Your task to perform on an android device: Open wifi settings Image 0: 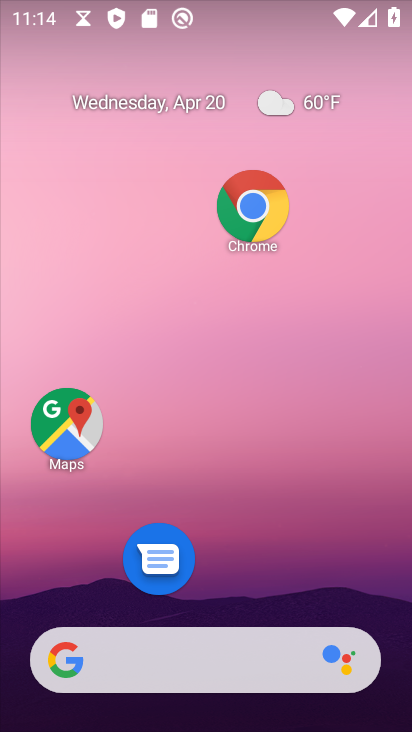
Step 0: drag from (305, 732) to (208, 43)
Your task to perform on an android device: Open wifi settings Image 1: 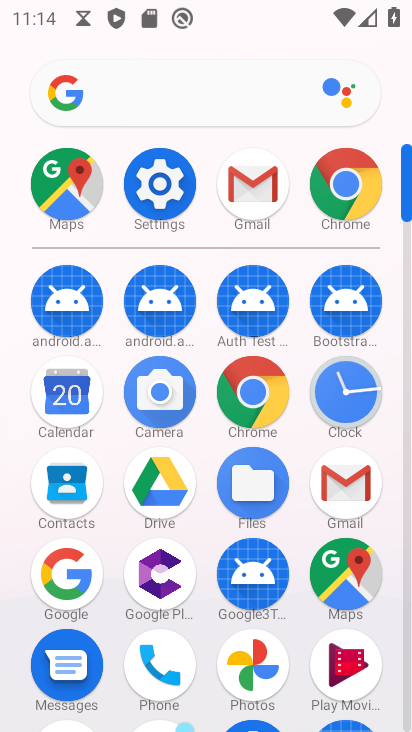
Step 1: drag from (192, 640) to (301, 11)
Your task to perform on an android device: Open wifi settings Image 2: 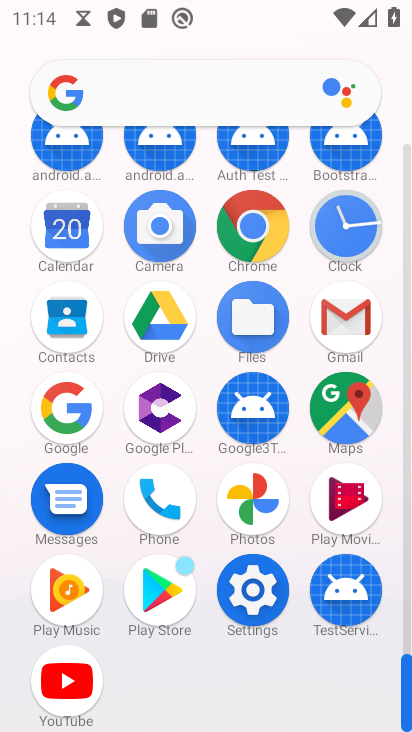
Step 2: click (262, 605)
Your task to perform on an android device: Open wifi settings Image 3: 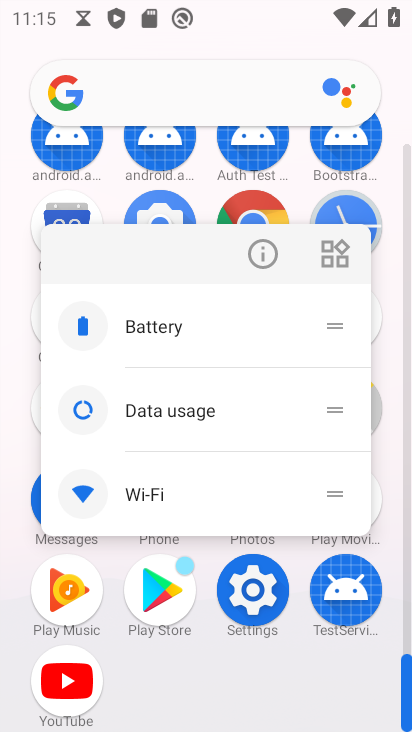
Step 3: click (263, 605)
Your task to perform on an android device: Open wifi settings Image 4: 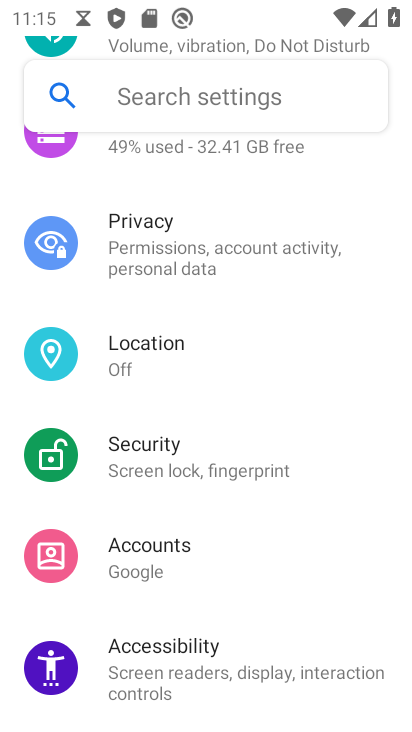
Step 4: drag from (221, 254) to (261, 728)
Your task to perform on an android device: Open wifi settings Image 5: 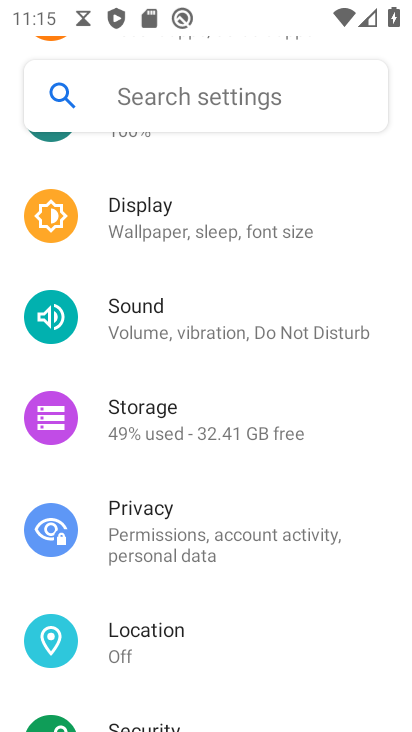
Step 5: drag from (233, 238) to (260, 596)
Your task to perform on an android device: Open wifi settings Image 6: 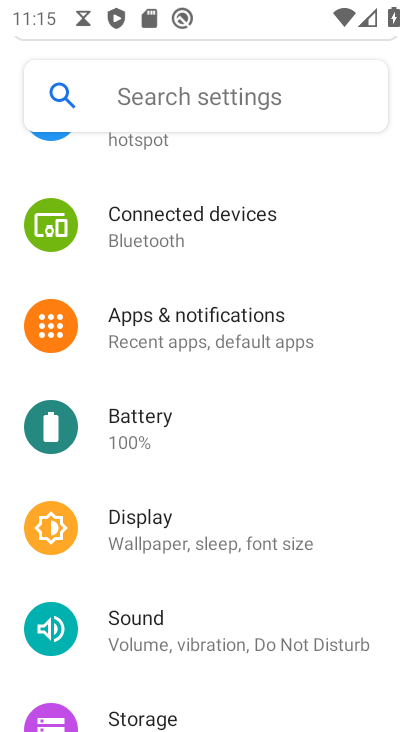
Step 6: drag from (235, 217) to (269, 724)
Your task to perform on an android device: Open wifi settings Image 7: 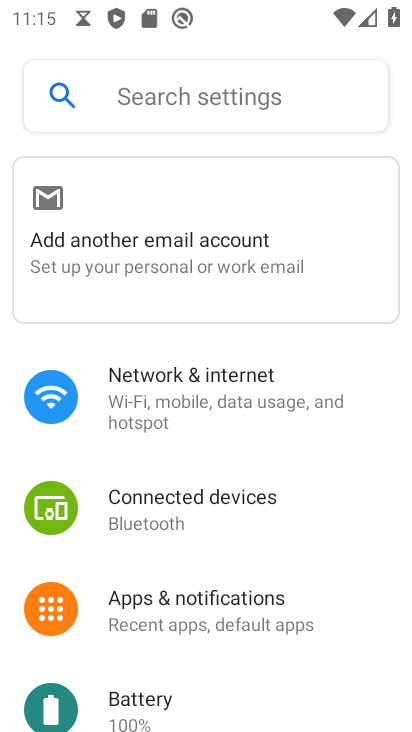
Step 7: click (245, 401)
Your task to perform on an android device: Open wifi settings Image 8: 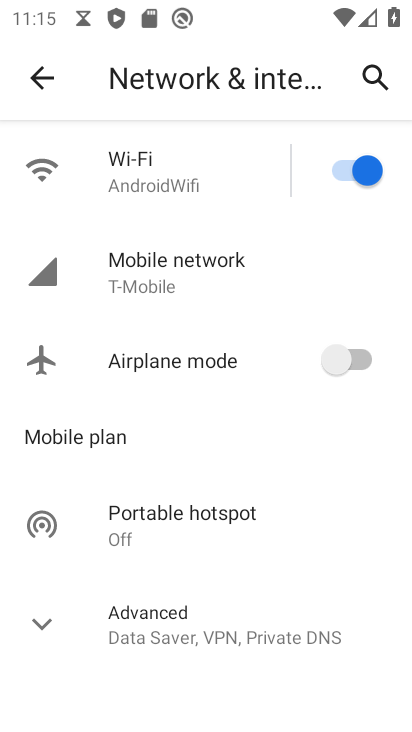
Step 8: click (223, 167)
Your task to perform on an android device: Open wifi settings Image 9: 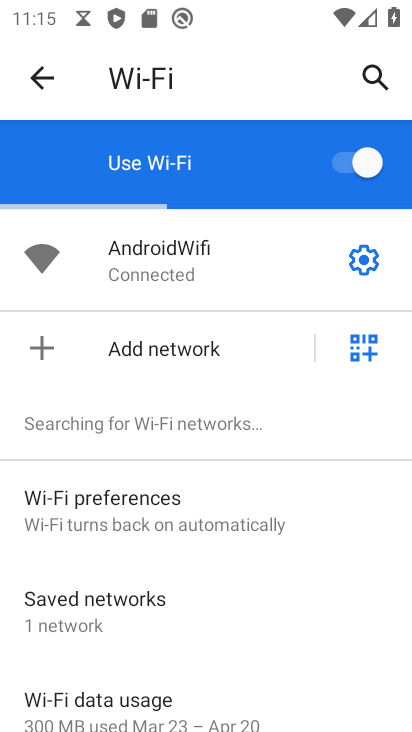
Step 9: task complete